Your task to perform on an android device: turn pop-ups on in chrome Image 0: 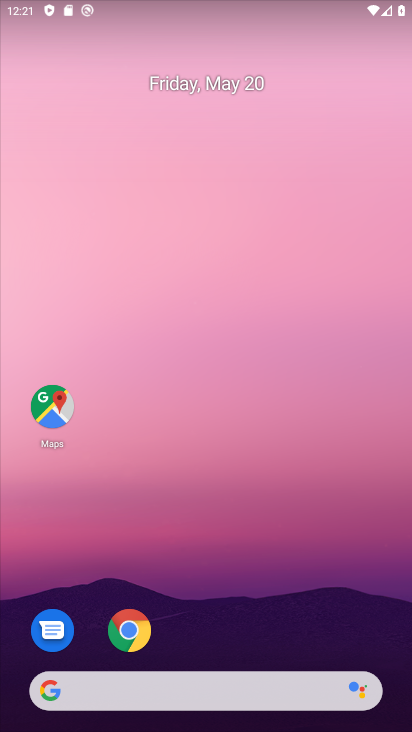
Step 0: click (130, 632)
Your task to perform on an android device: turn pop-ups on in chrome Image 1: 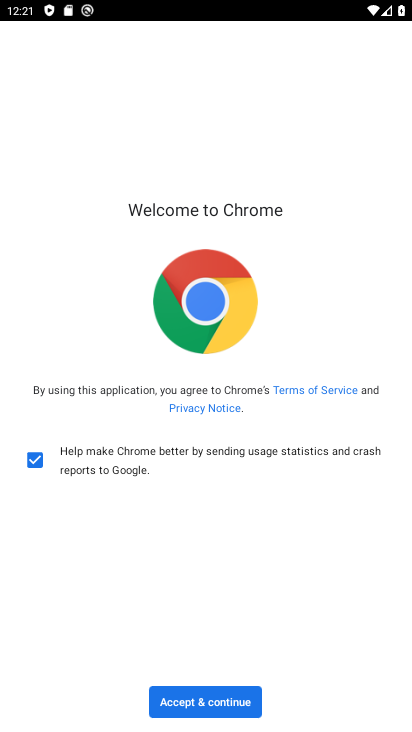
Step 1: click (205, 701)
Your task to perform on an android device: turn pop-ups on in chrome Image 2: 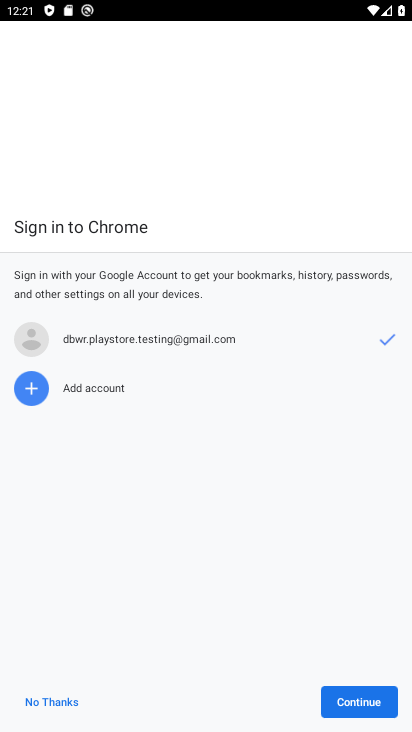
Step 2: click (346, 695)
Your task to perform on an android device: turn pop-ups on in chrome Image 3: 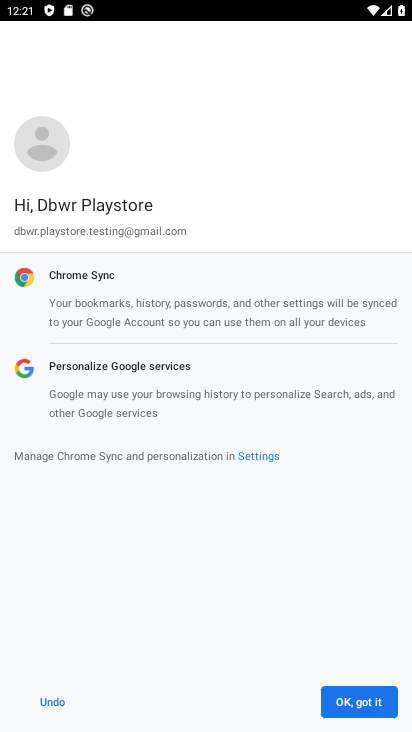
Step 3: click (351, 706)
Your task to perform on an android device: turn pop-ups on in chrome Image 4: 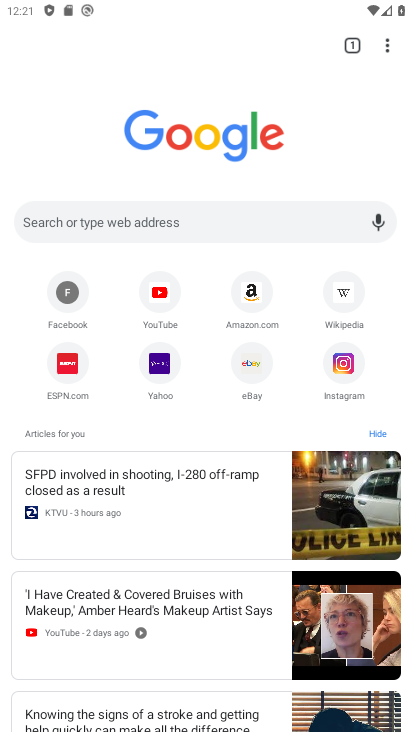
Step 4: click (389, 45)
Your task to perform on an android device: turn pop-ups on in chrome Image 5: 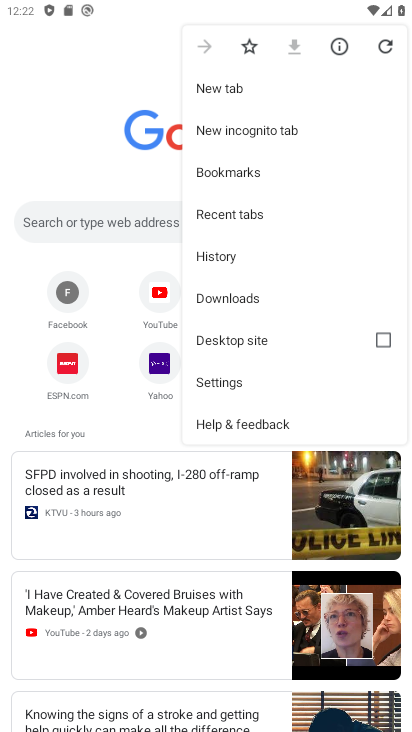
Step 5: click (230, 382)
Your task to perform on an android device: turn pop-ups on in chrome Image 6: 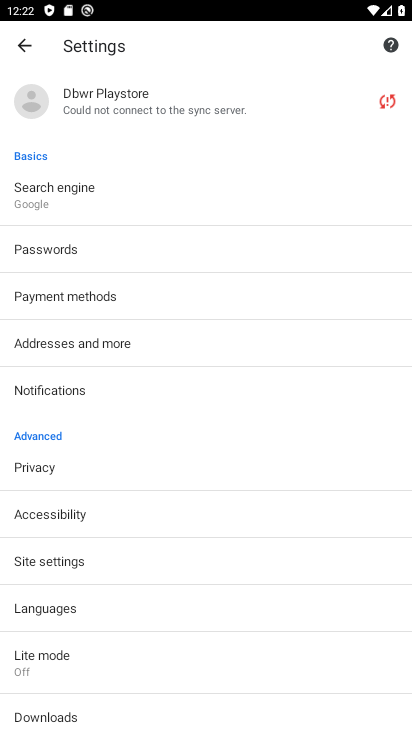
Step 6: click (41, 566)
Your task to perform on an android device: turn pop-ups on in chrome Image 7: 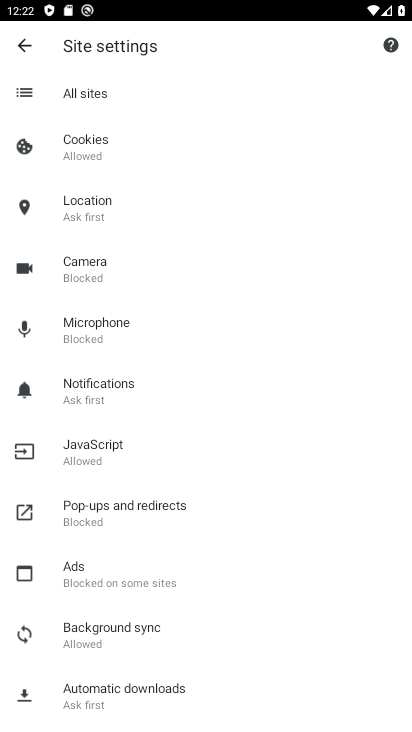
Step 7: click (98, 510)
Your task to perform on an android device: turn pop-ups on in chrome Image 8: 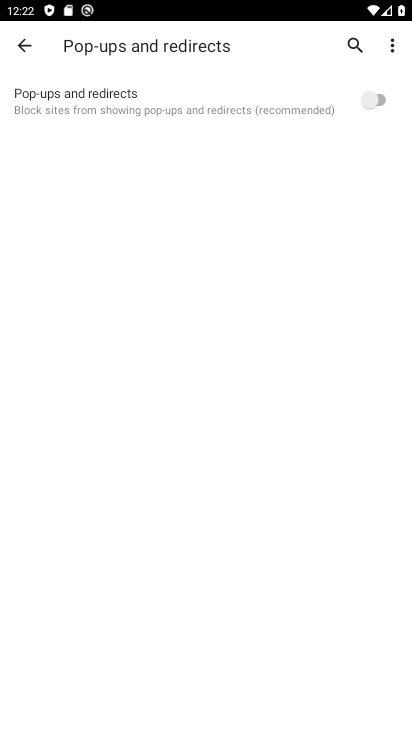
Step 8: click (377, 98)
Your task to perform on an android device: turn pop-ups on in chrome Image 9: 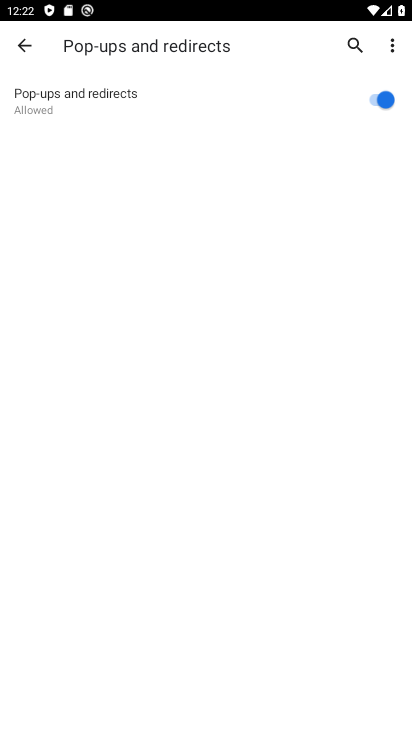
Step 9: task complete